Your task to perform on an android device: toggle wifi Image 0: 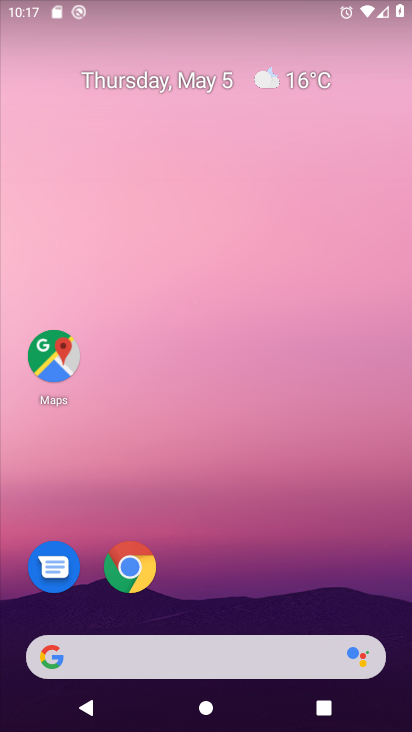
Step 0: drag from (297, 546) to (303, 28)
Your task to perform on an android device: toggle wifi Image 1: 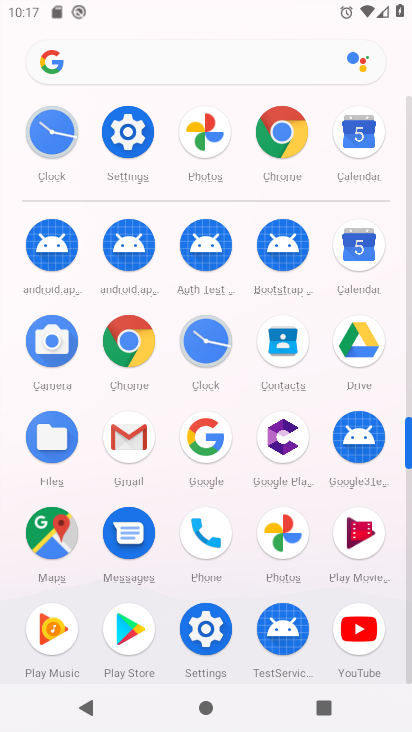
Step 1: click (131, 134)
Your task to perform on an android device: toggle wifi Image 2: 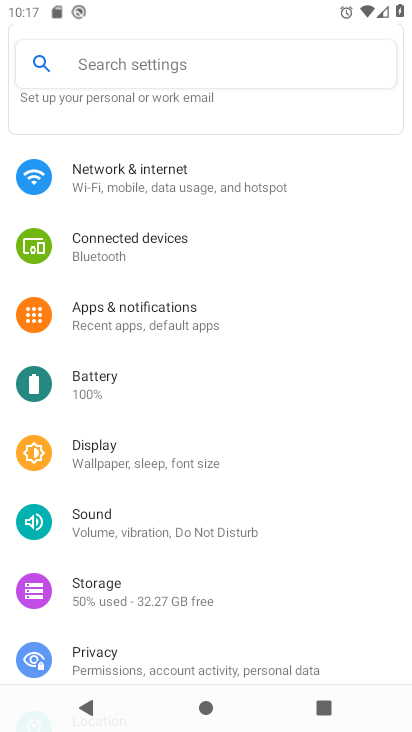
Step 2: click (245, 175)
Your task to perform on an android device: toggle wifi Image 3: 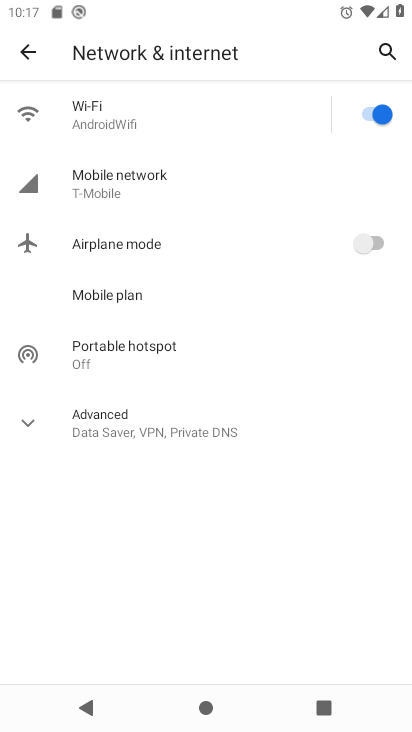
Step 3: click (364, 111)
Your task to perform on an android device: toggle wifi Image 4: 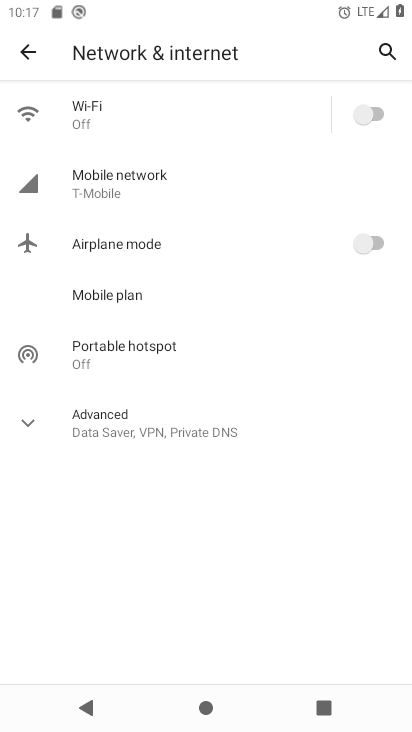
Step 4: task complete